Your task to perform on an android device: Do I have any events tomorrow? Image 0: 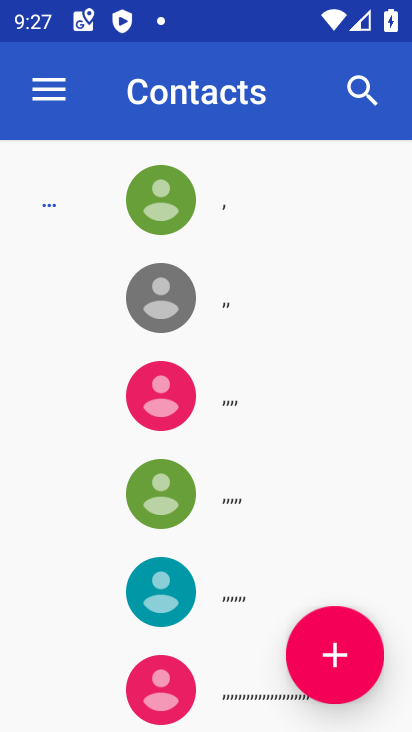
Step 0: press home button
Your task to perform on an android device: Do I have any events tomorrow? Image 1: 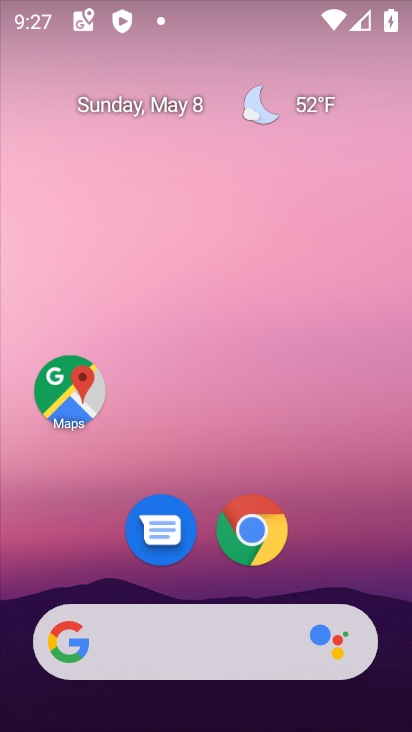
Step 1: drag from (198, 598) to (202, 211)
Your task to perform on an android device: Do I have any events tomorrow? Image 2: 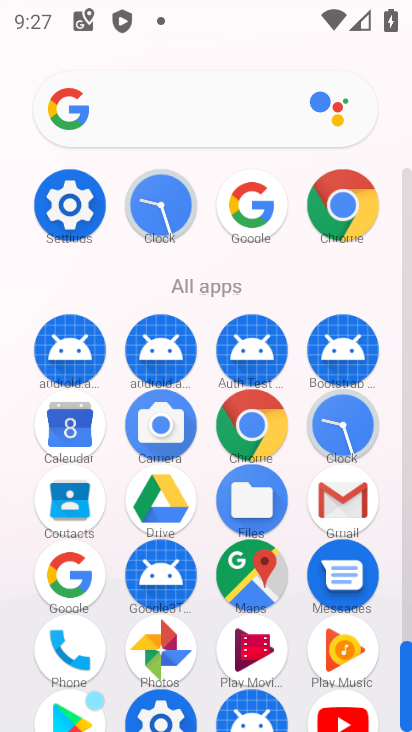
Step 2: click (56, 434)
Your task to perform on an android device: Do I have any events tomorrow? Image 3: 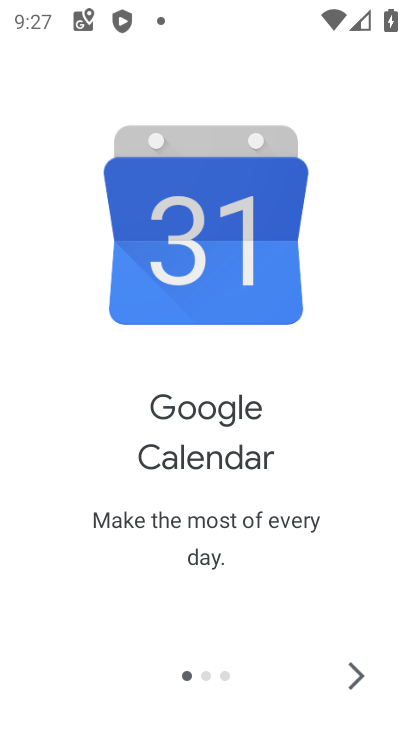
Step 3: click (347, 667)
Your task to perform on an android device: Do I have any events tomorrow? Image 4: 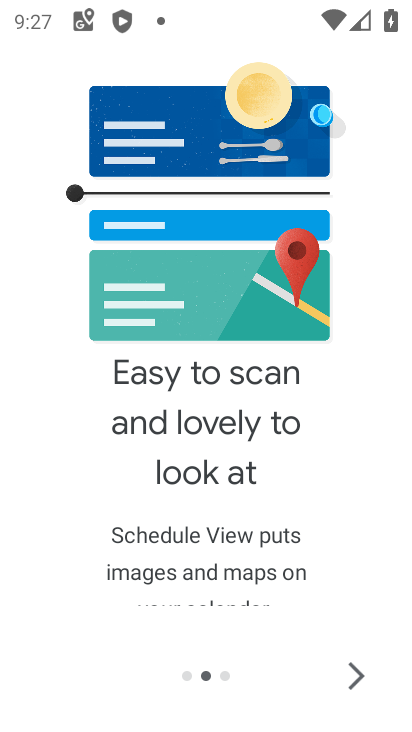
Step 4: click (355, 668)
Your task to perform on an android device: Do I have any events tomorrow? Image 5: 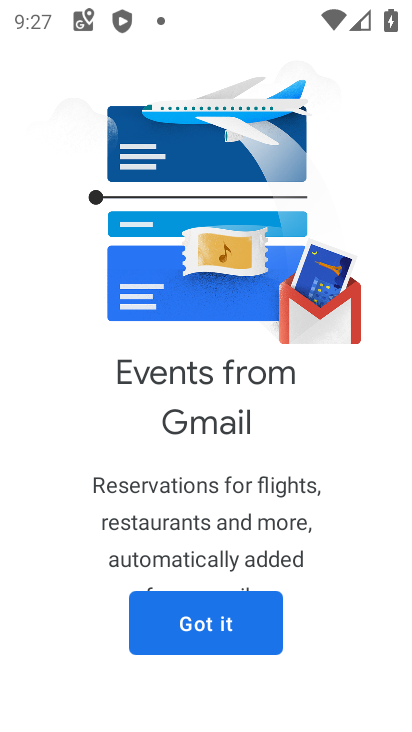
Step 5: click (204, 625)
Your task to perform on an android device: Do I have any events tomorrow? Image 6: 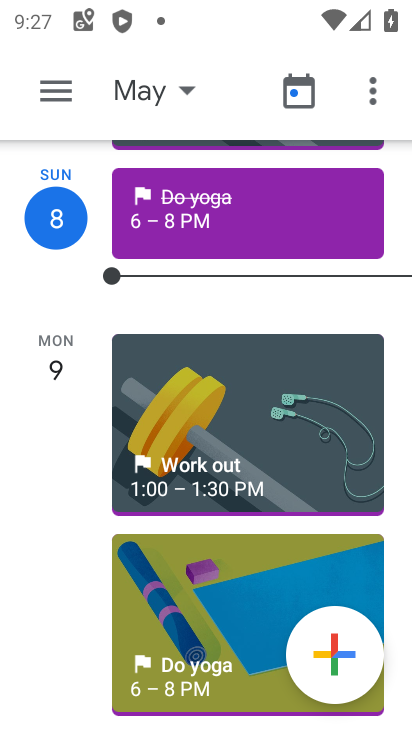
Step 6: drag from (211, 501) to (197, 300)
Your task to perform on an android device: Do I have any events tomorrow? Image 7: 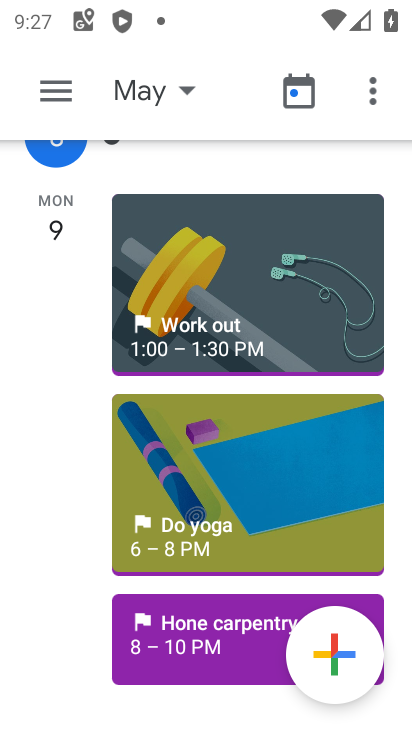
Step 7: click (163, 335)
Your task to perform on an android device: Do I have any events tomorrow? Image 8: 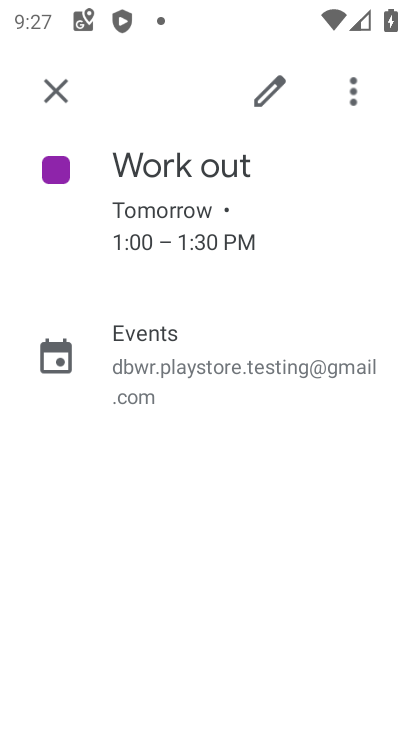
Step 8: task complete